Your task to perform on an android device: check storage Image 0: 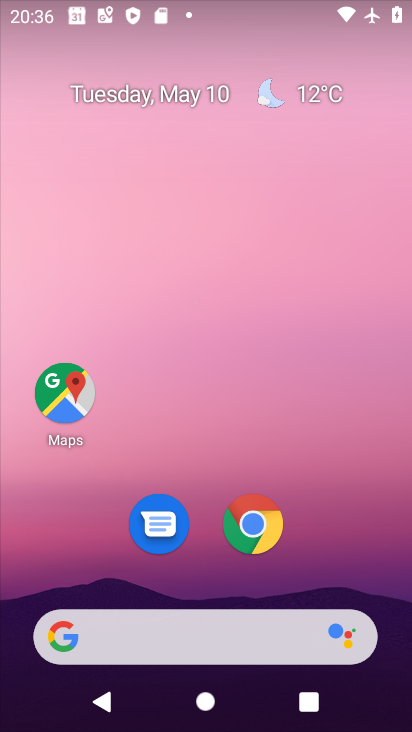
Step 0: drag from (317, 525) to (338, 37)
Your task to perform on an android device: check storage Image 1: 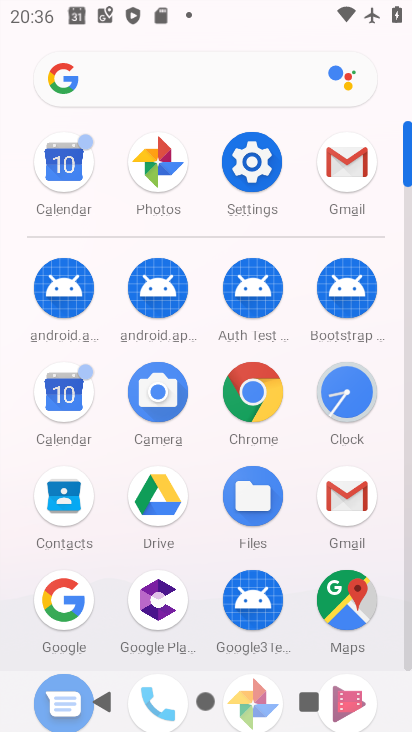
Step 1: click (266, 168)
Your task to perform on an android device: check storage Image 2: 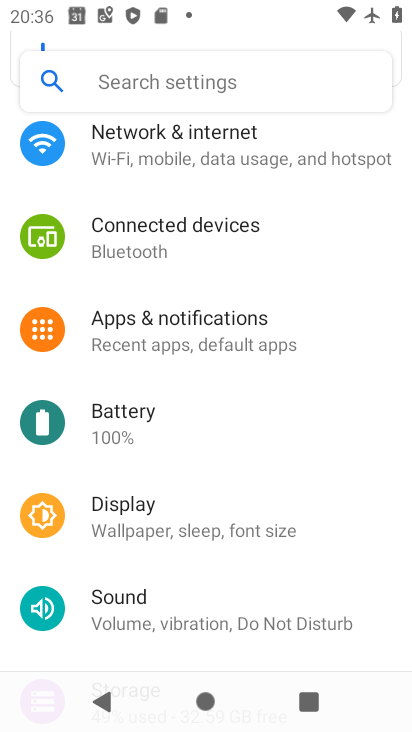
Step 2: drag from (211, 461) to (211, 145)
Your task to perform on an android device: check storage Image 3: 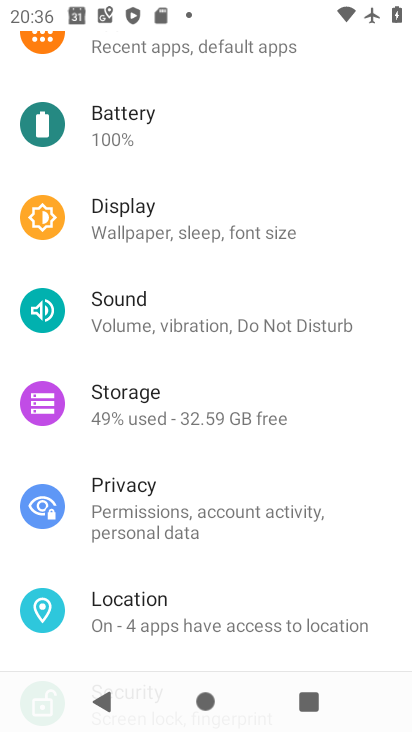
Step 3: click (181, 414)
Your task to perform on an android device: check storage Image 4: 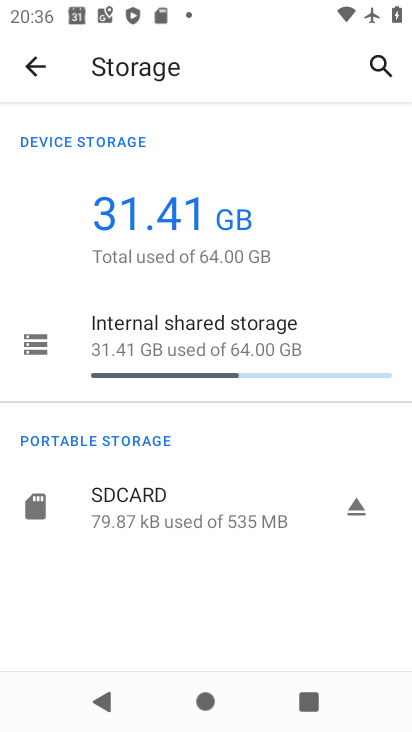
Step 4: task complete